Your task to perform on an android device: Open the map Image 0: 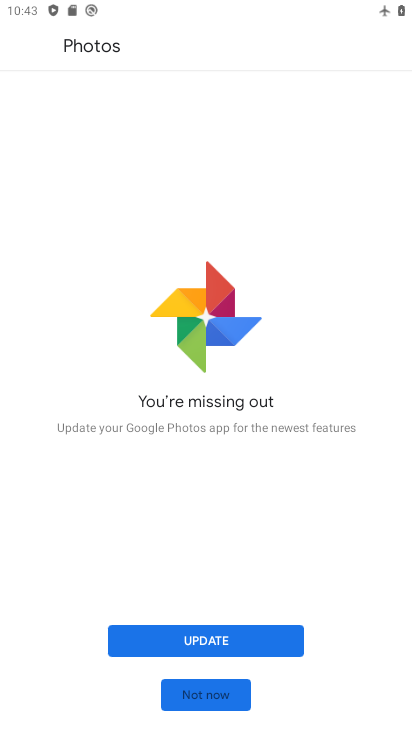
Step 0: press home button
Your task to perform on an android device: Open the map Image 1: 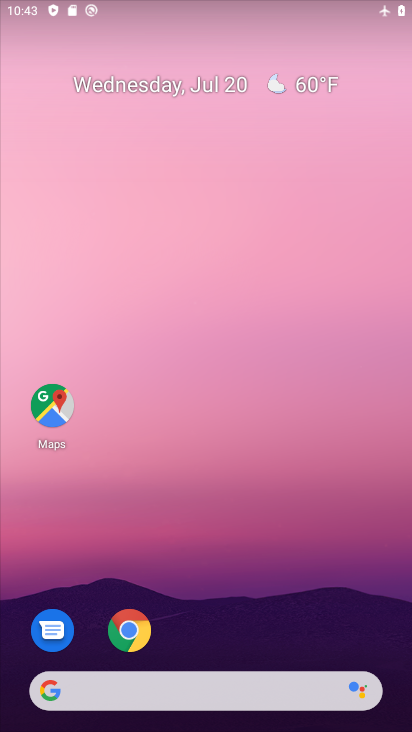
Step 1: click (58, 406)
Your task to perform on an android device: Open the map Image 2: 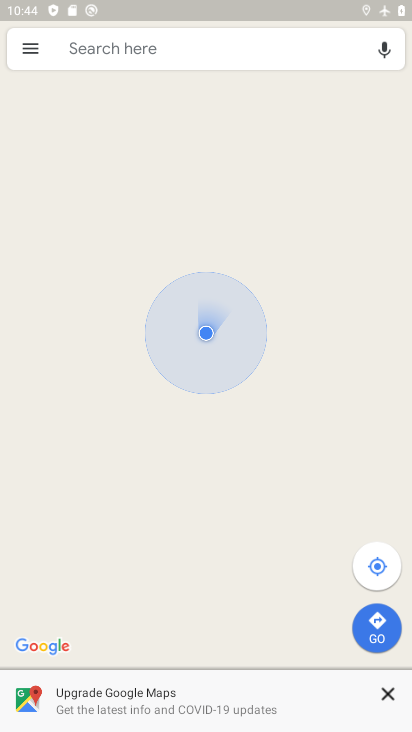
Step 2: task complete